Your task to perform on an android device: open chrome and create a bookmark for the current page Image 0: 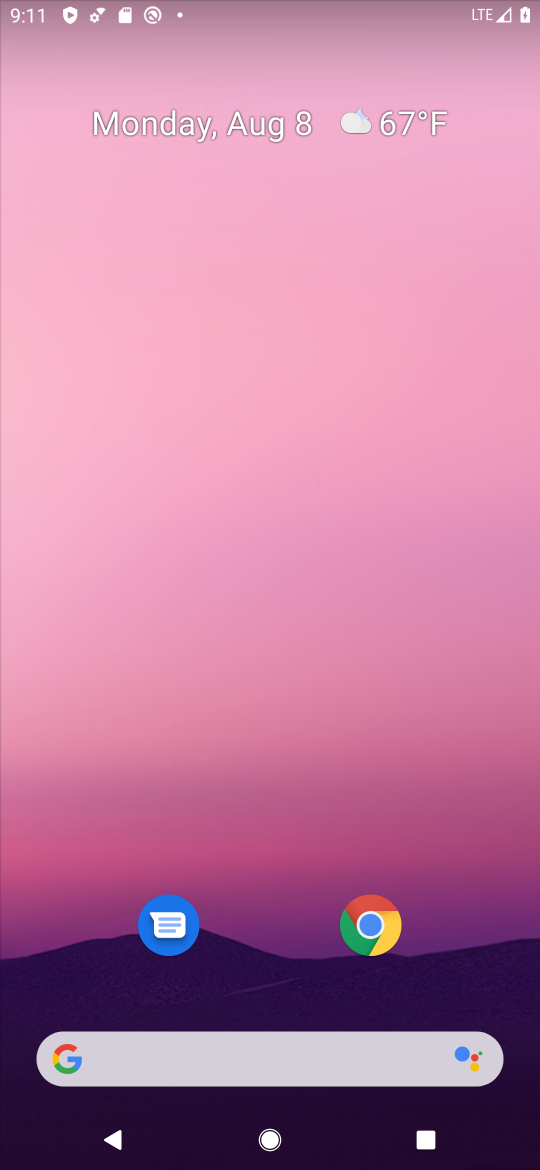
Step 0: drag from (284, 357) to (308, 226)
Your task to perform on an android device: open chrome and create a bookmark for the current page Image 1: 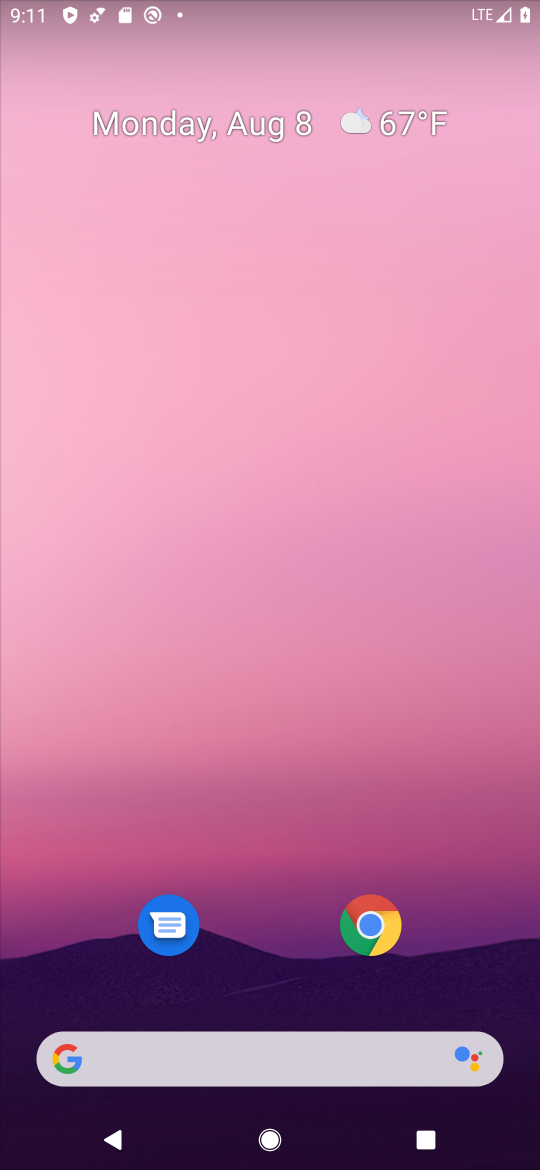
Step 1: drag from (275, 902) to (299, 206)
Your task to perform on an android device: open chrome and create a bookmark for the current page Image 2: 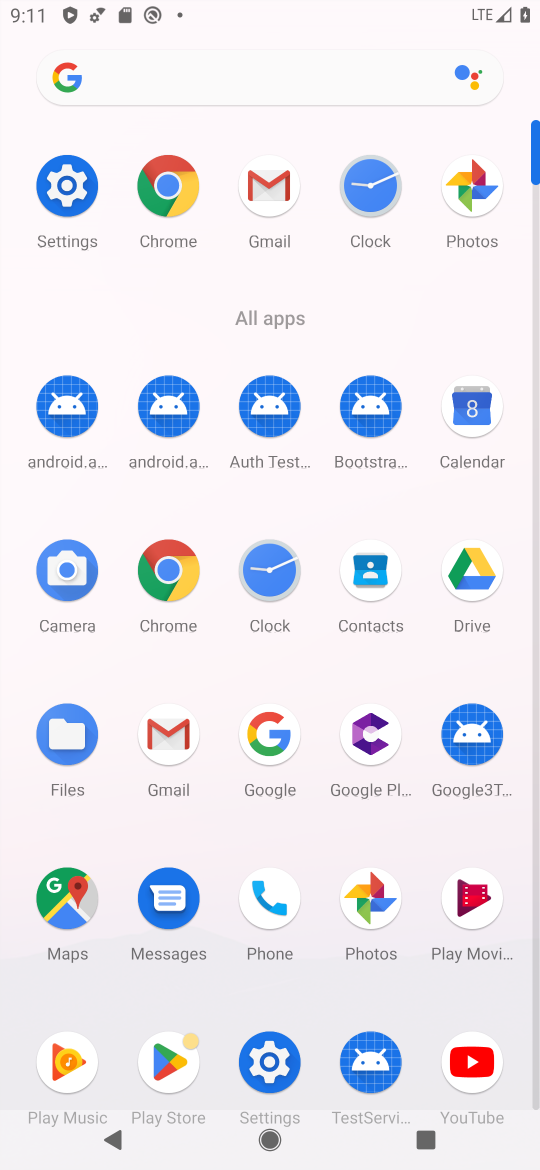
Step 2: click (168, 568)
Your task to perform on an android device: open chrome and create a bookmark for the current page Image 3: 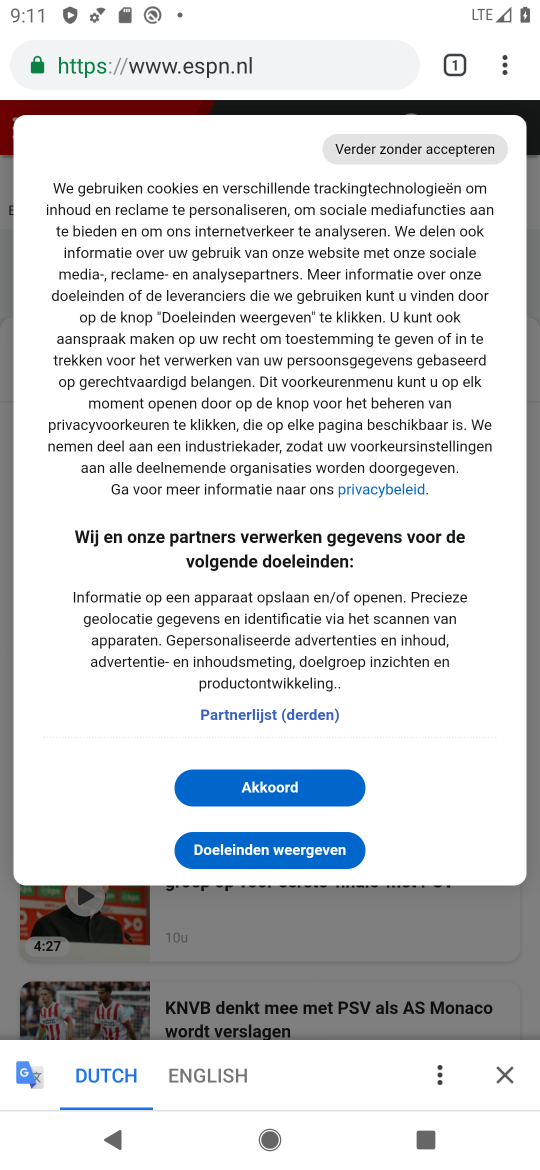
Step 3: task complete